Your task to perform on an android device: manage bookmarks in the chrome app Image 0: 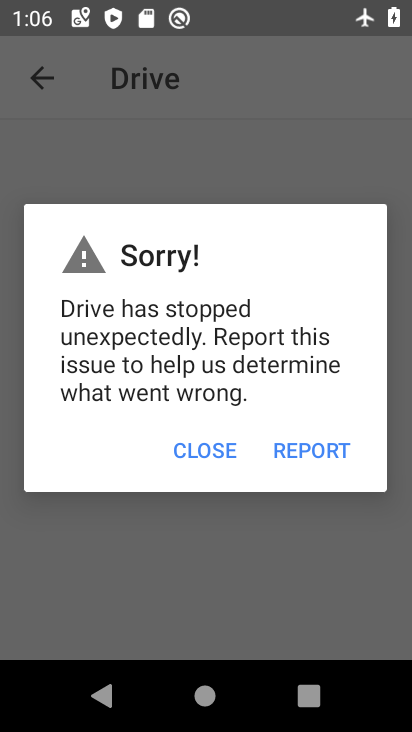
Step 0: press home button
Your task to perform on an android device: manage bookmarks in the chrome app Image 1: 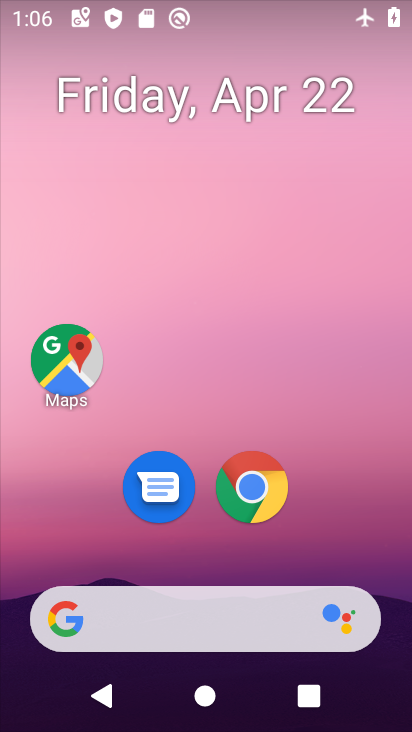
Step 1: click (251, 491)
Your task to perform on an android device: manage bookmarks in the chrome app Image 2: 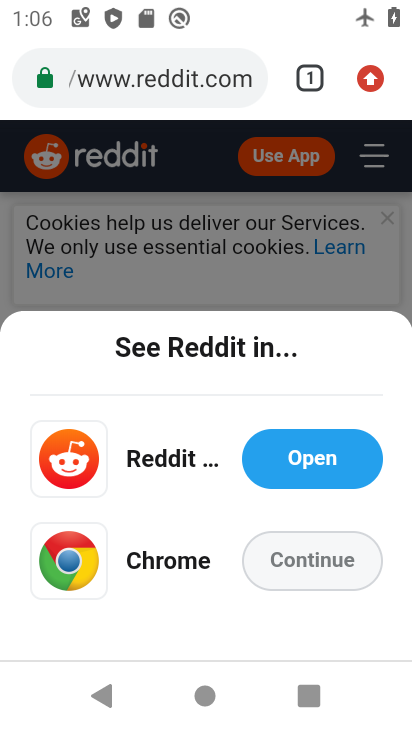
Step 2: click (371, 74)
Your task to perform on an android device: manage bookmarks in the chrome app Image 3: 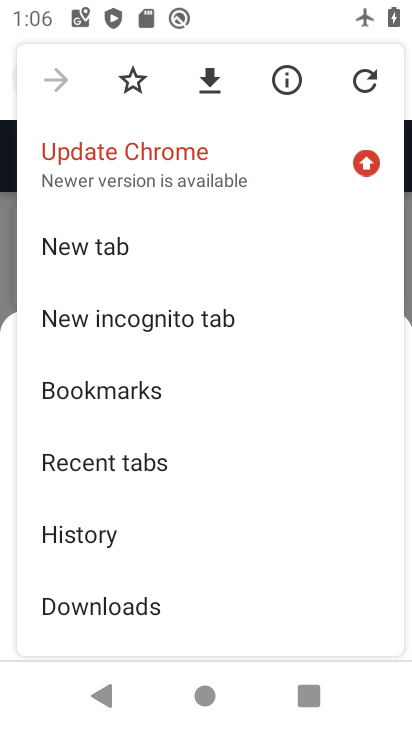
Step 3: click (154, 398)
Your task to perform on an android device: manage bookmarks in the chrome app Image 4: 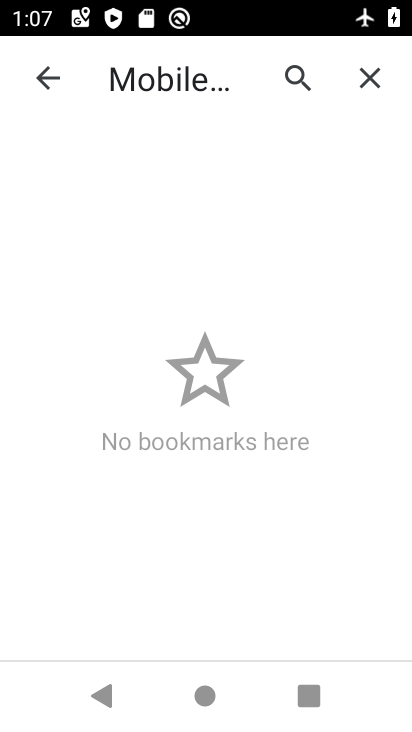
Step 4: task complete